Your task to perform on an android device: Open the calendar app, open the side menu, and click the "Day" option Image 0: 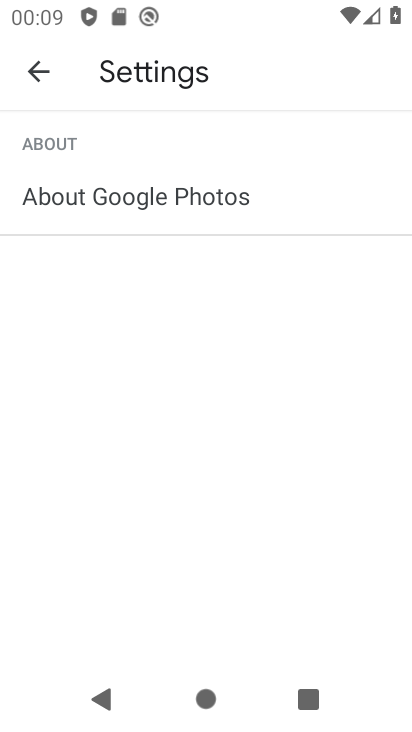
Step 0: press home button
Your task to perform on an android device: Open the calendar app, open the side menu, and click the "Day" option Image 1: 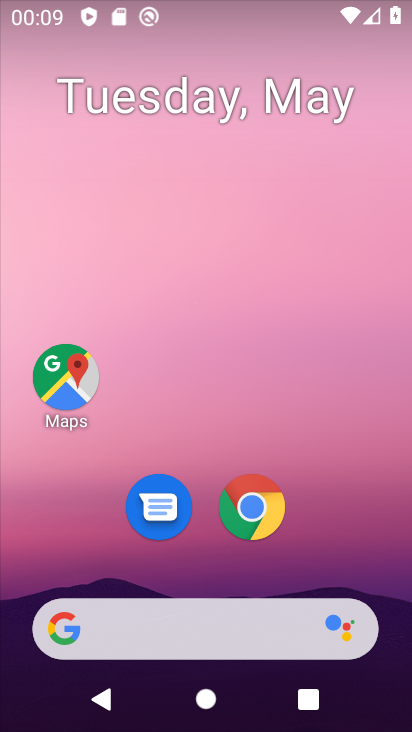
Step 1: drag from (218, 610) to (276, 153)
Your task to perform on an android device: Open the calendar app, open the side menu, and click the "Day" option Image 2: 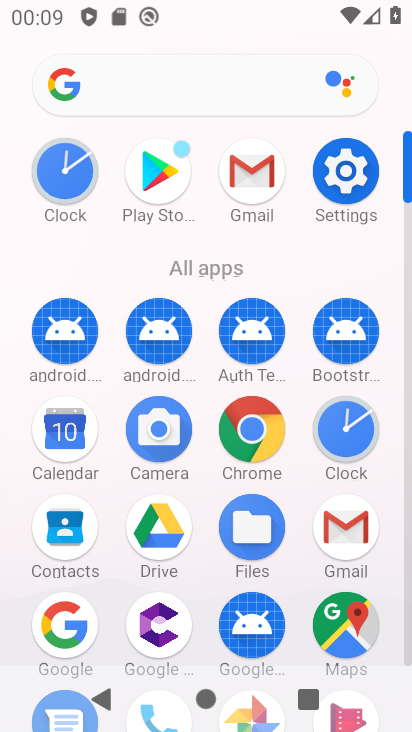
Step 2: click (85, 438)
Your task to perform on an android device: Open the calendar app, open the side menu, and click the "Day" option Image 3: 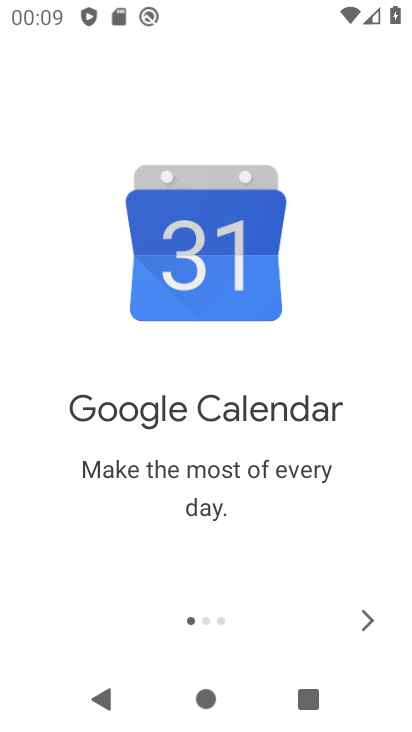
Step 3: click (362, 631)
Your task to perform on an android device: Open the calendar app, open the side menu, and click the "Day" option Image 4: 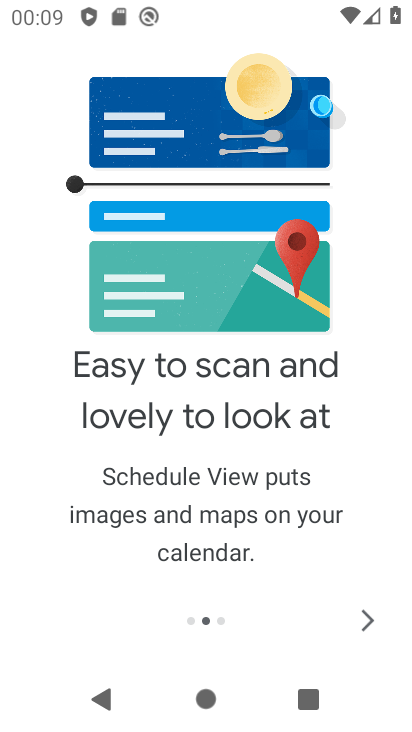
Step 4: click (362, 631)
Your task to perform on an android device: Open the calendar app, open the side menu, and click the "Day" option Image 5: 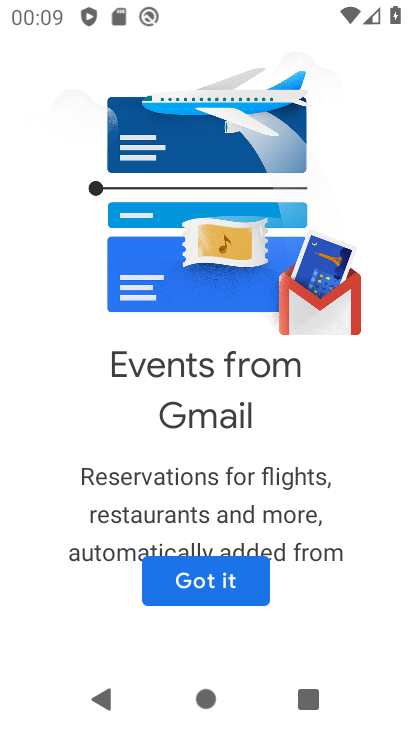
Step 5: click (212, 574)
Your task to perform on an android device: Open the calendar app, open the side menu, and click the "Day" option Image 6: 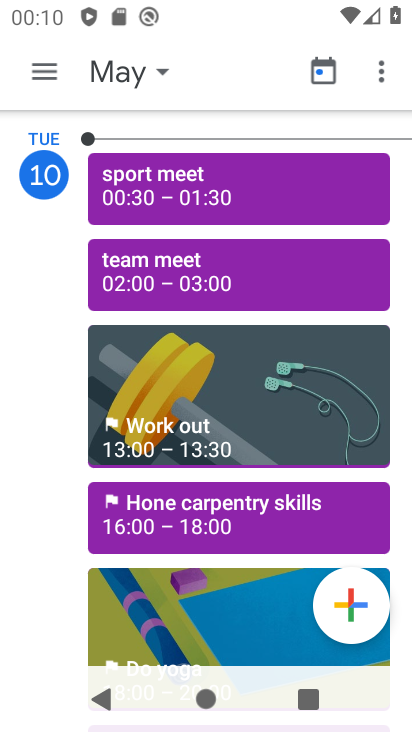
Step 6: click (41, 64)
Your task to perform on an android device: Open the calendar app, open the side menu, and click the "Day" option Image 7: 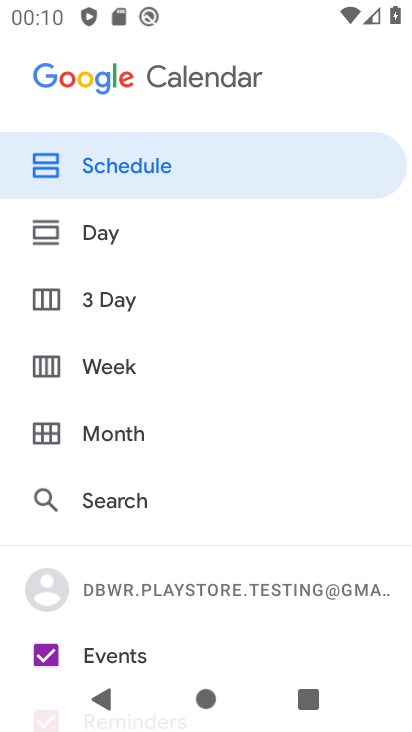
Step 7: click (105, 218)
Your task to perform on an android device: Open the calendar app, open the side menu, and click the "Day" option Image 8: 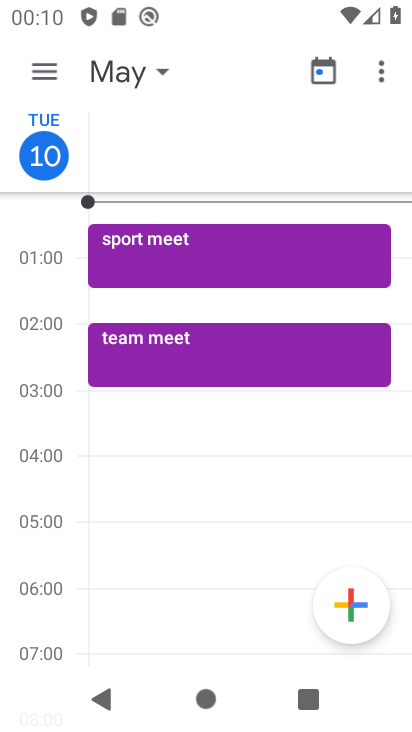
Step 8: task complete